Your task to perform on an android device: open sync settings in chrome Image 0: 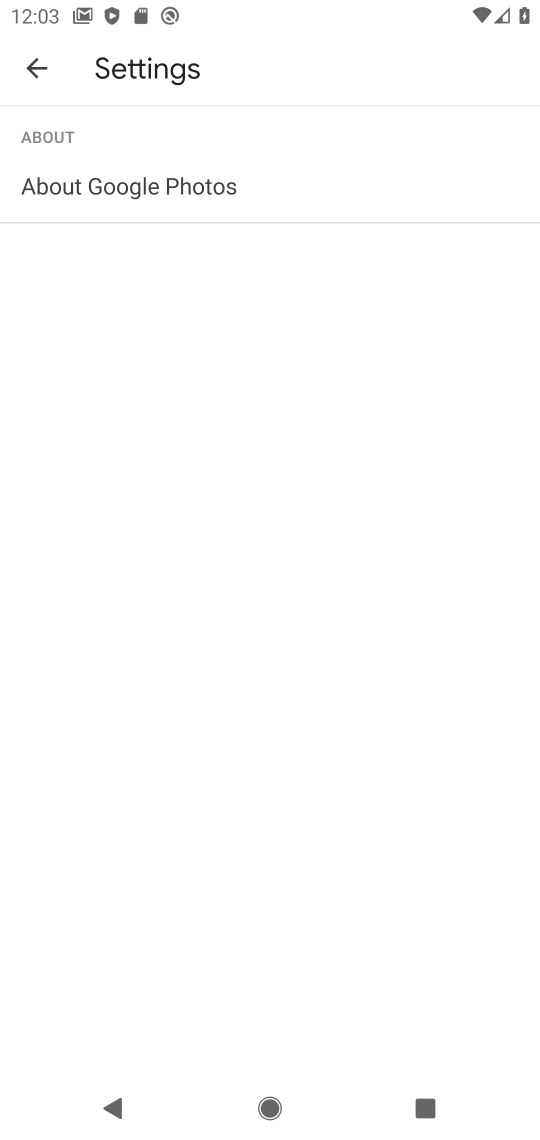
Step 0: press home button
Your task to perform on an android device: open sync settings in chrome Image 1: 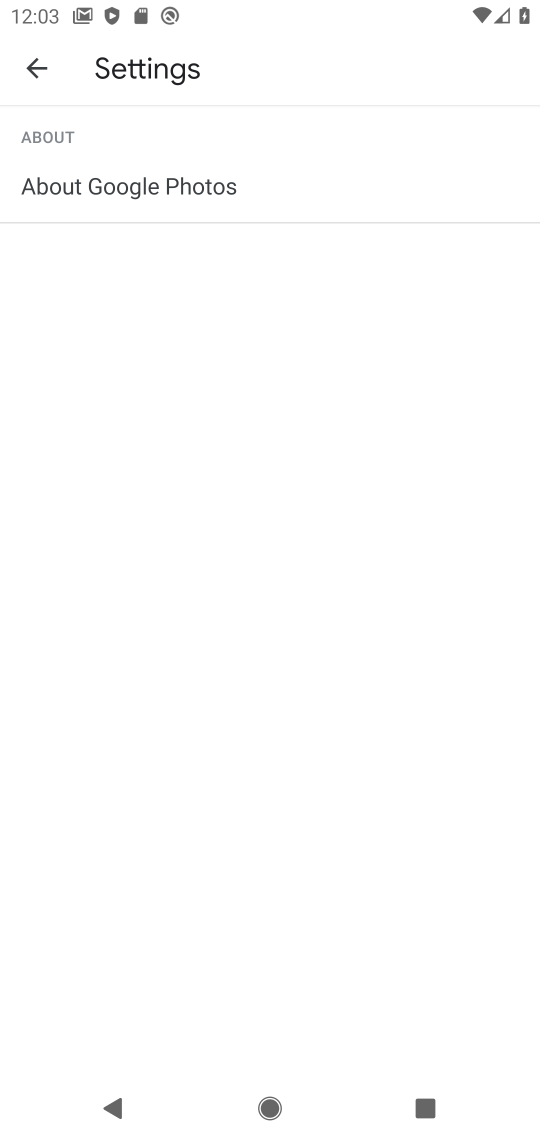
Step 1: press home button
Your task to perform on an android device: open sync settings in chrome Image 2: 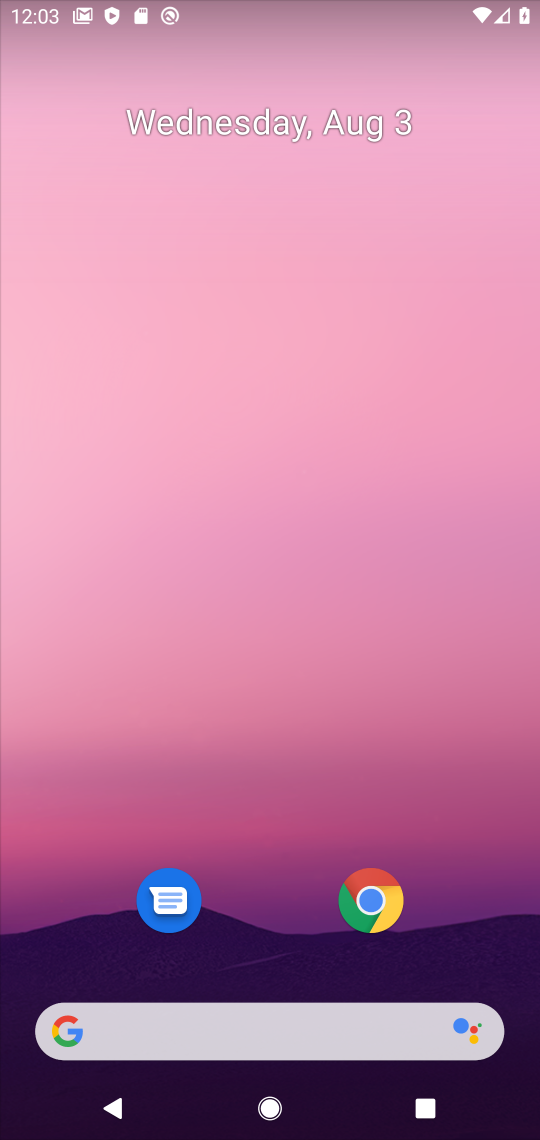
Step 2: drag from (264, 669) to (257, 95)
Your task to perform on an android device: open sync settings in chrome Image 3: 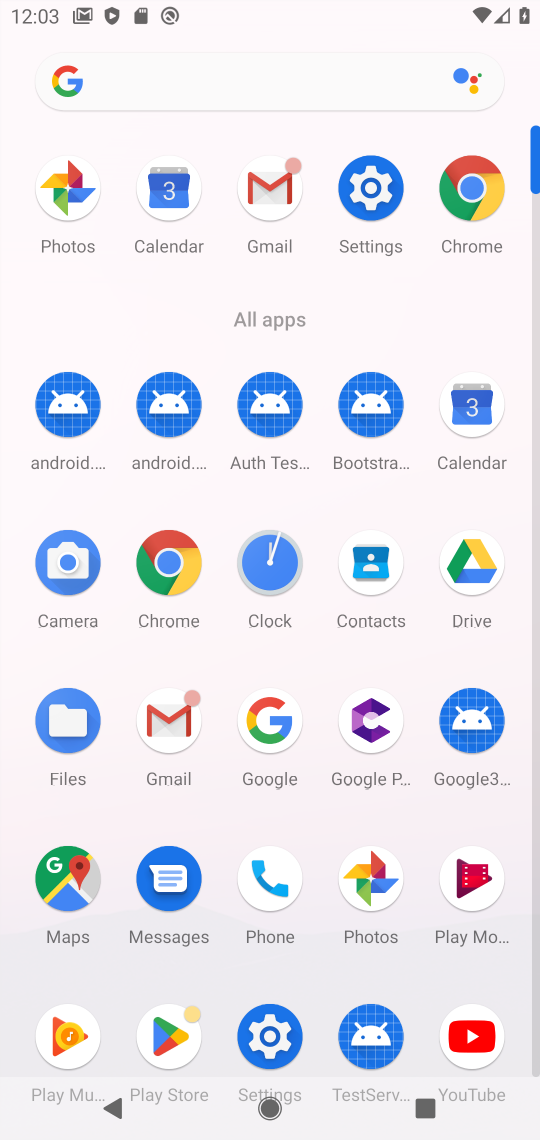
Step 3: click (482, 188)
Your task to perform on an android device: open sync settings in chrome Image 4: 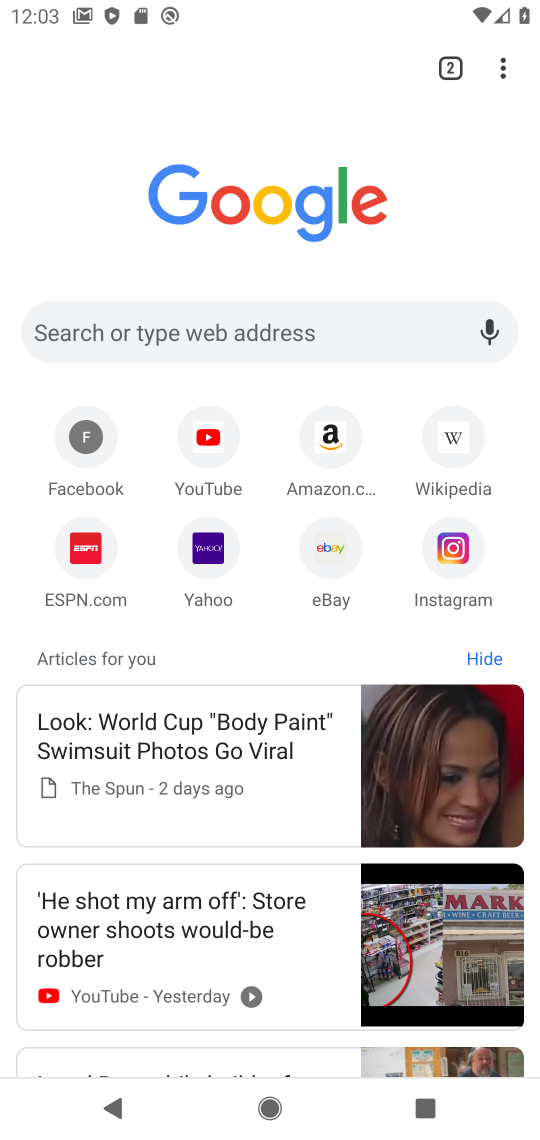
Step 4: drag from (500, 64) to (262, 660)
Your task to perform on an android device: open sync settings in chrome Image 5: 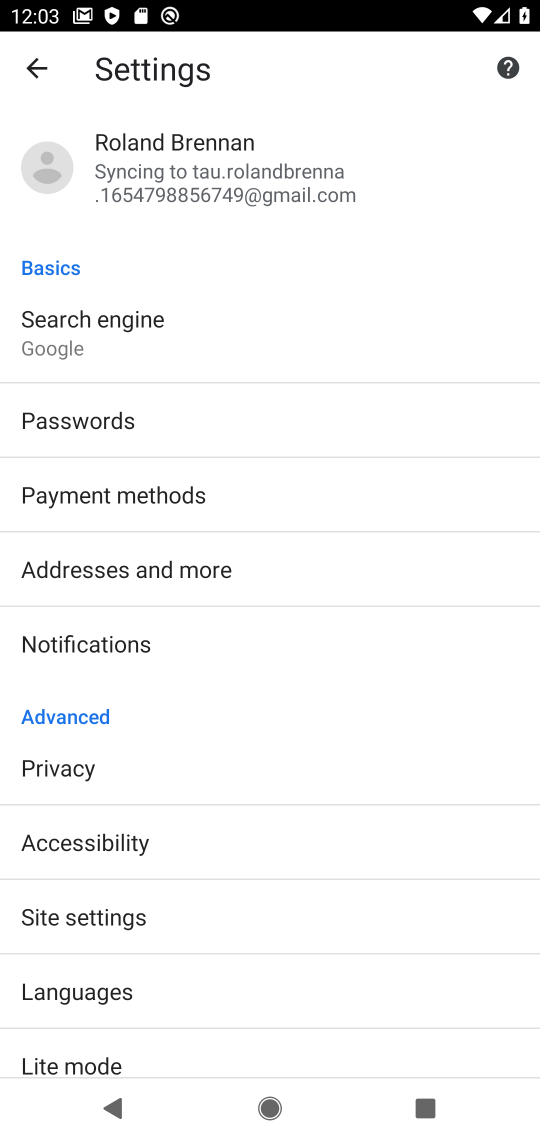
Step 5: drag from (257, 1022) to (231, 1110)
Your task to perform on an android device: open sync settings in chrome Image 6: 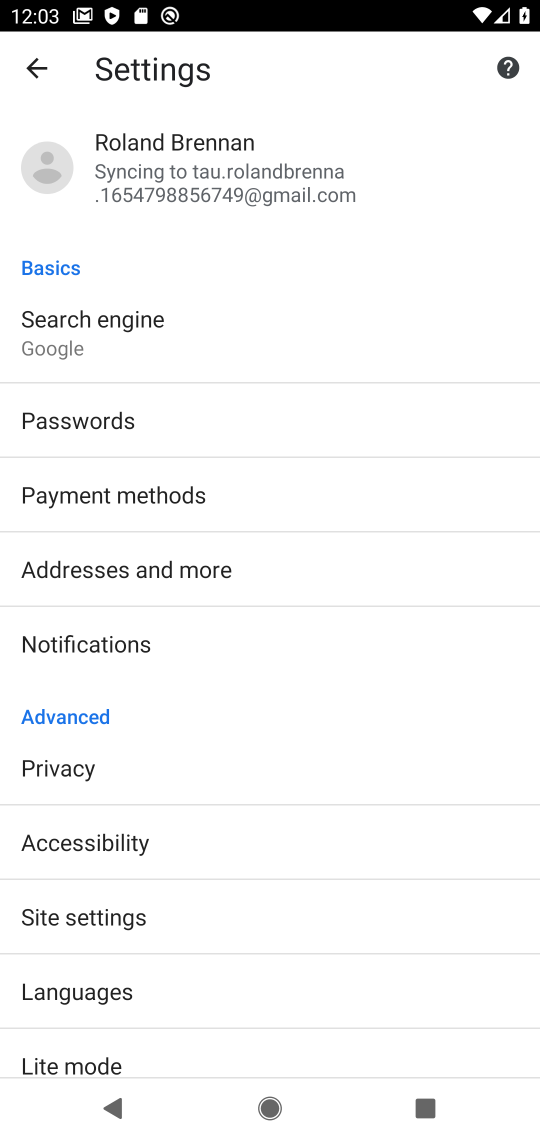
Step 6: click (205, 162)
Your task to perform on an android device: open sync settings in chrome Image 7: 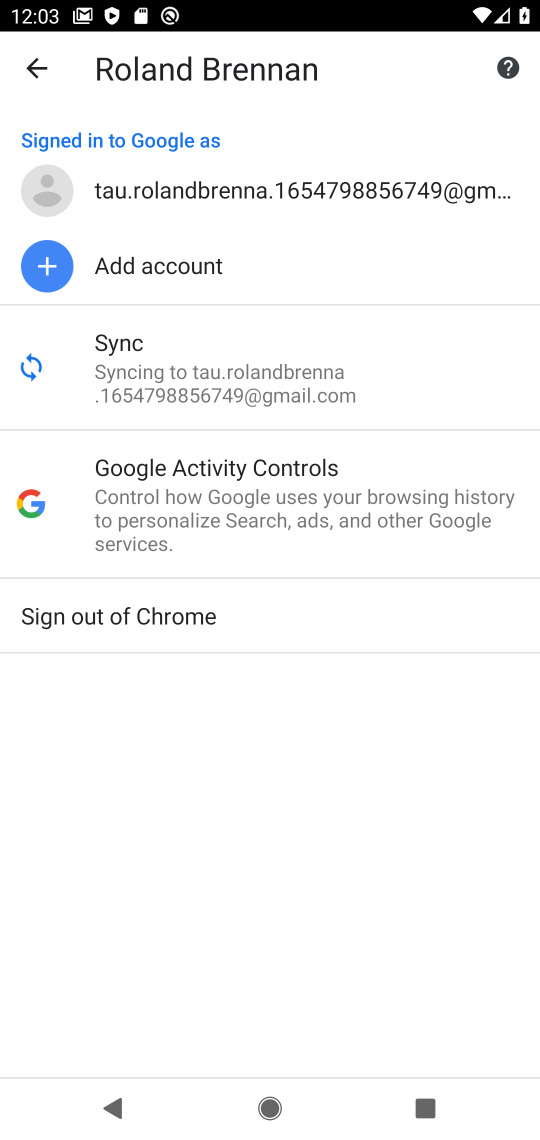
Step 7: click (195, 426)
Your task to perform on an android device: open sync settings in chrome Image 8: 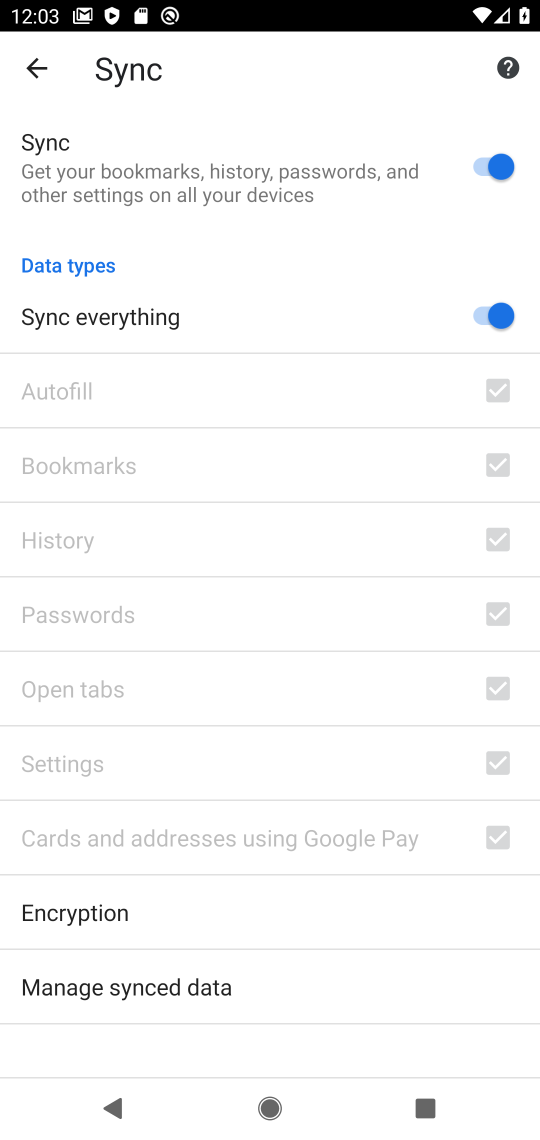
Step 8: task complete